Your task to perform on an android device: Show me popular games on the Play Store Image 0: 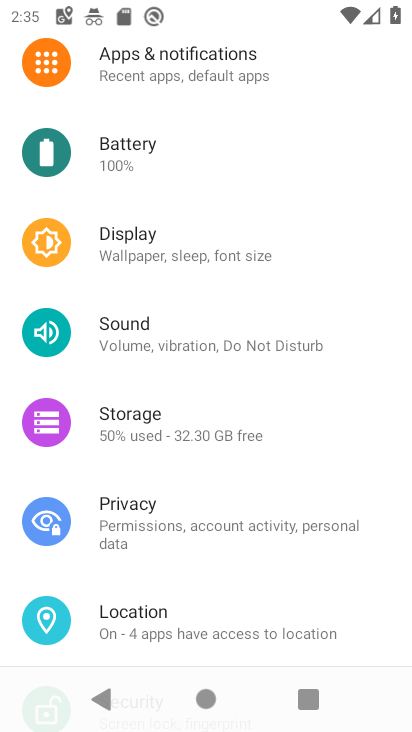
Step 0: press home button
Your task to perform on an android device: Show me popular games on the Play Store Image 1: 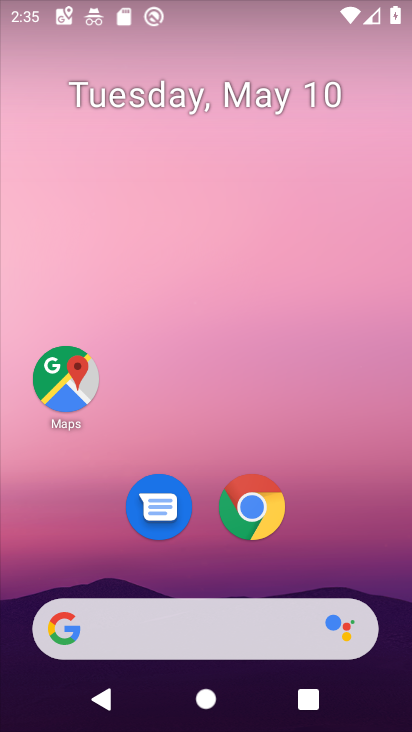
Step 1: drag from (172, 592) to (180, 288)
Your task to perform on an android device: Show me popular games on the Play Store Image 2: 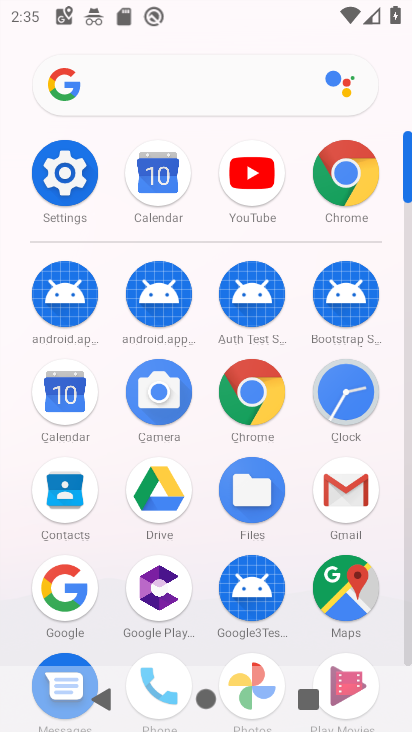
Step 2: drag from (208, 666) to (212, 329)
Your task to perform on an android device: Show me popular games on the Play Store Image 3: 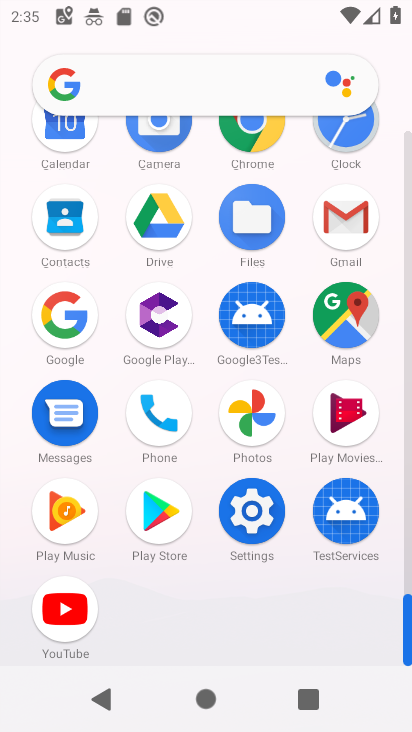
Step 3: click (156, 512)
Your task to perform on an android device: Show me popular games on the Play Store Image 4: 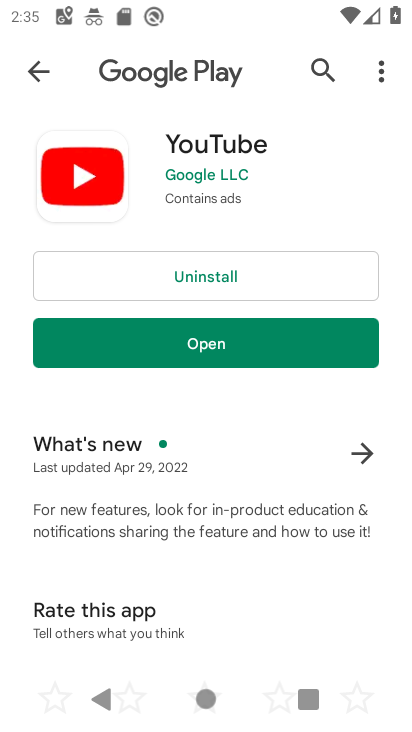
Step 4: click (215, 353)
Your task to perform on an android device: Show me popular games on the Play Store Image 5: 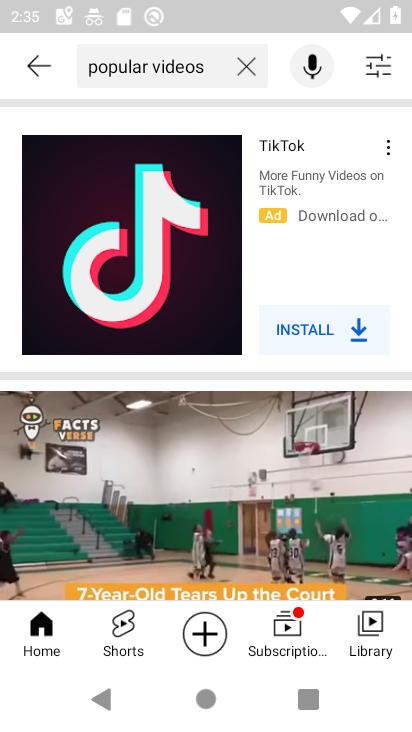
Step 5: click (140, 63)
Your task to perform on an android device: Show me popular games on the Play Store Image 6: 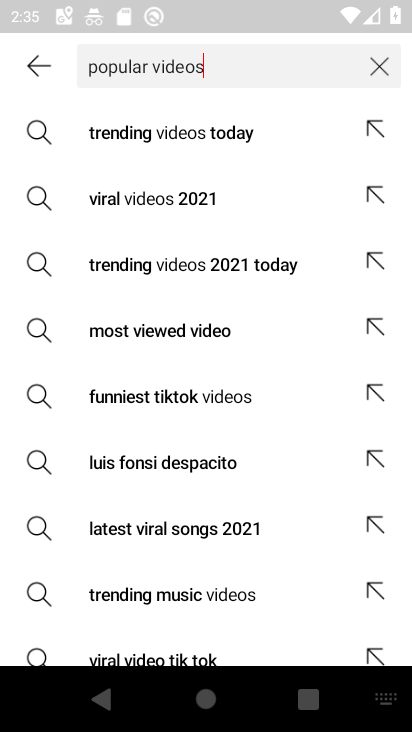
Step 6: click (383, 65)
Your task to perform on an android device: Show me popular games on the Play Store Image 7: 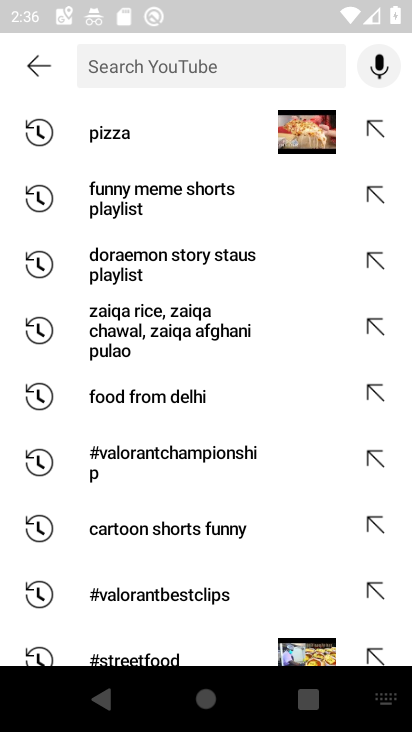
Step 7: type "popular videos"
Your task to perform on an android device: Show me popular games on the Play Store Image 8: 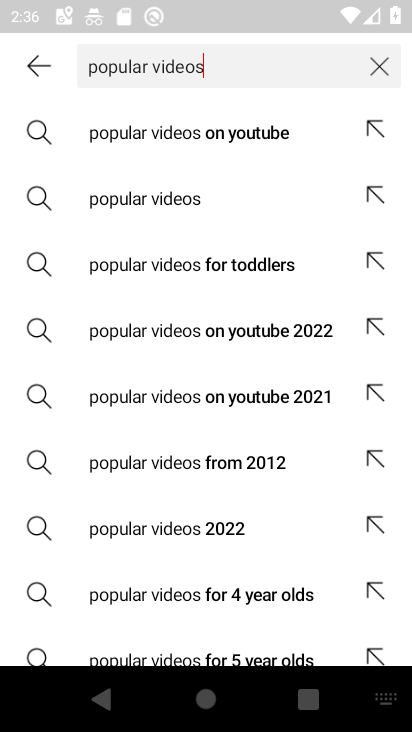
Step 8: click (158, 195)
Your task to perform on an android device: Show me popular games on the Play Store Image 9: 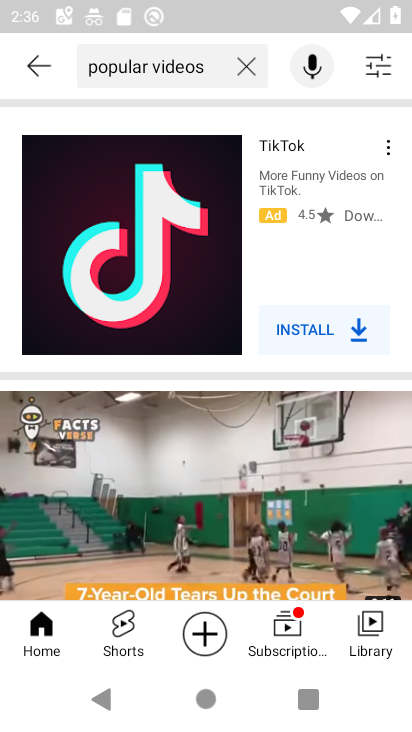
Step 9: task complete